Your task to perform on an android device: Show me recent news Image 0: 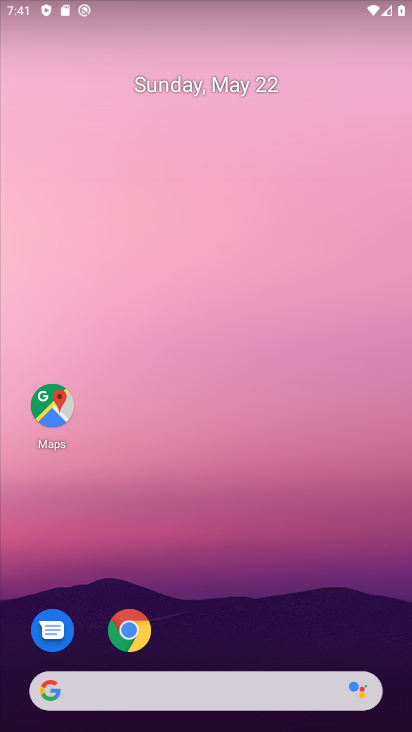
Step 0: drag from (264, 631) to (297, 141)
Your task to perform on an android device: Show me recent news Image 1: 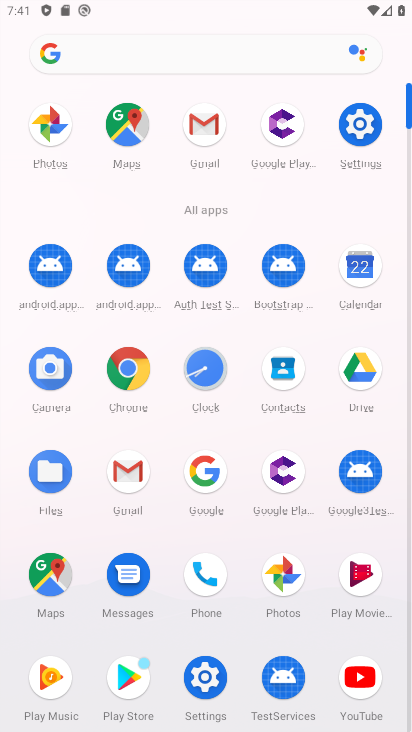
Step 1: click (239, 48)
Your task to perform on an android device: Show me recent news Image 2: 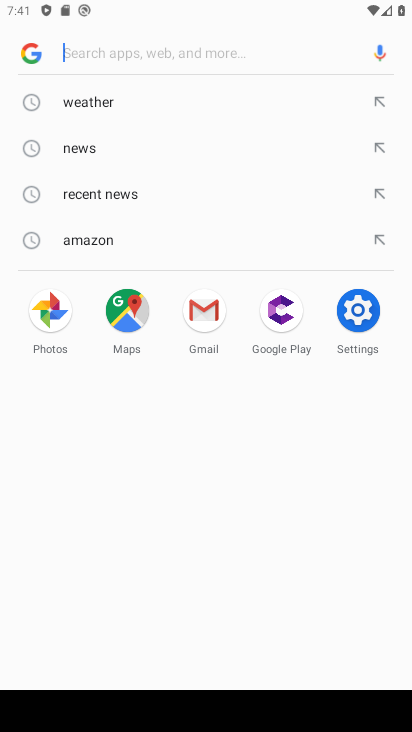
Step 2: click (224, 54)
Your task to perform on an android device: Show me recent news Image 3: 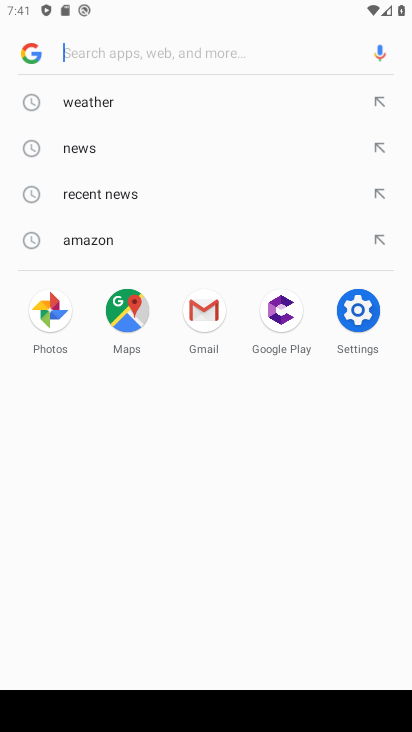
Step 3: click (136, 144)
Your task to perform on an android device: Show me recent news Image 4: 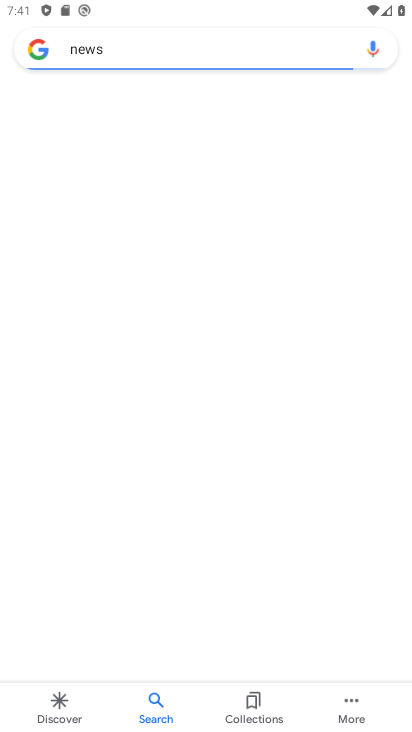
Step 4: task complete